Your task to perform on an android device: Go to notification settings Image 0: 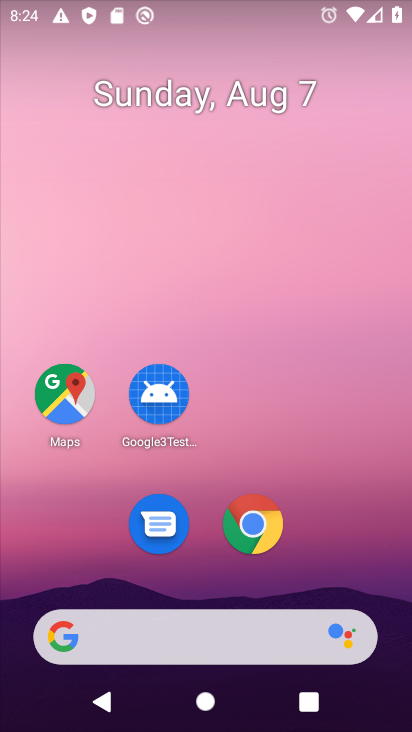
Step 0: drag from (242, 586) to (158, 63)
Your task to perform on an android device: Go to notification settings Image 1: 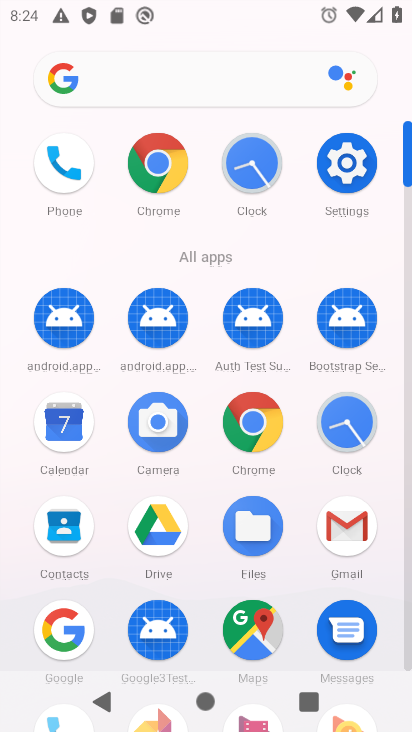
Step 1: click (354, 185)
Your task to perform on an android device: Go to notification settings Image 2: 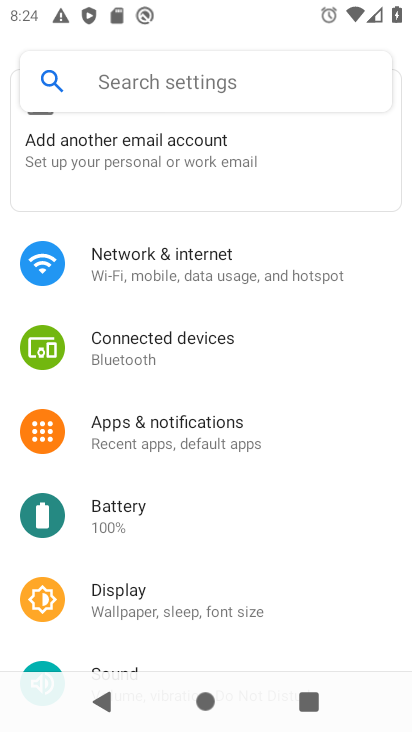
Step 2: click (162, 419)
Your task to perform on an android device: Go to notification settings Image 3: 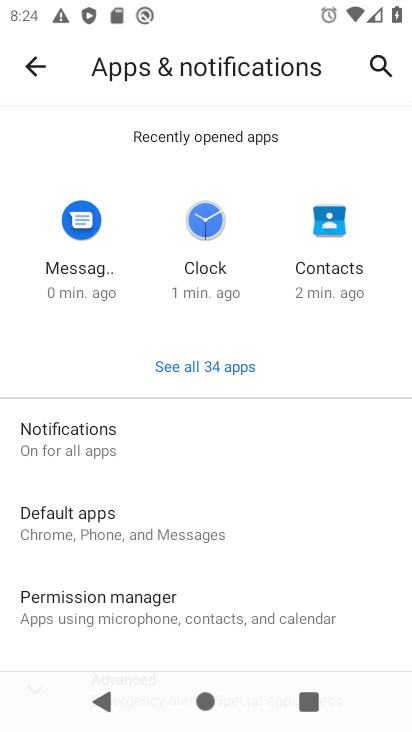
Step 3: click (138, 431)
Your task to perform on an android device: Go to notification settings Image 4: 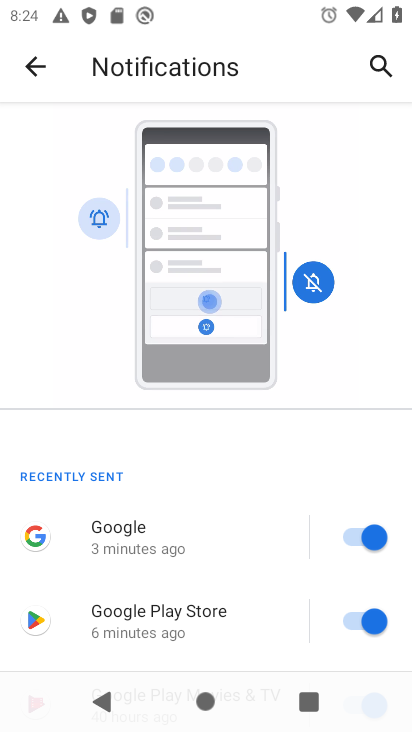
Step 4: task complete